Your task to perform on an android device: find snoozed emails in the gmail app Image 0: 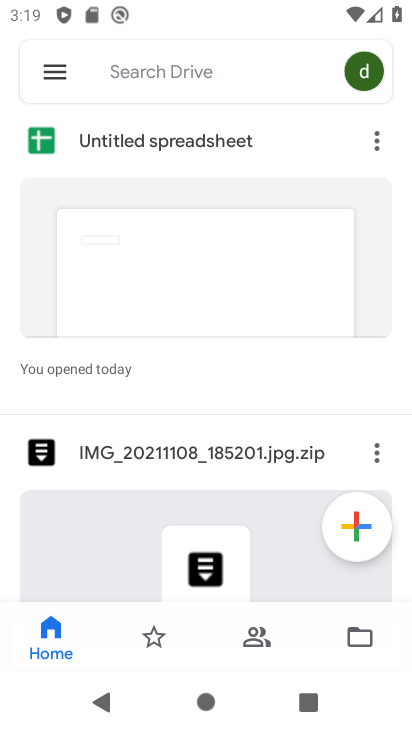
Step 0: press home button
Your task to perform on an android device: find snoozed emails in the gmail app Image 1: 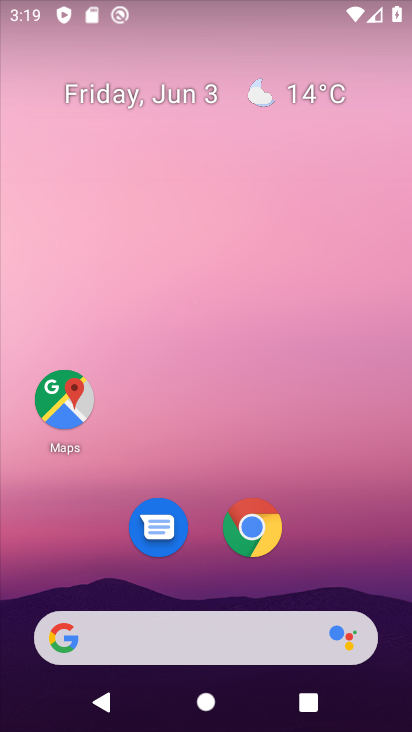
Step 1: drag from (320, 556) to (209, 98)
Your task to perform on an android device: find snoozed emails in the gmail app Image 2: 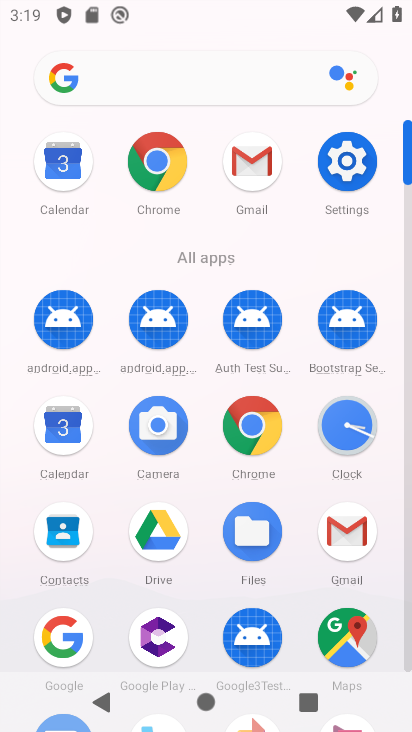
Step 2: click (251, 159)
Your task to perform on an android device: find snoozed emails in the gmail app Image 3: 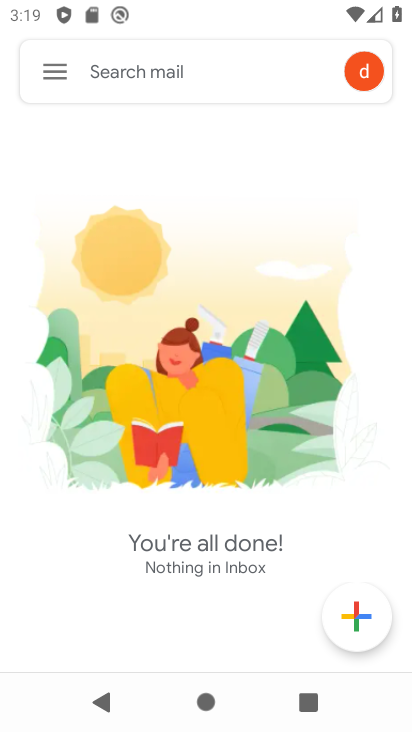
Step 3: click (57, 67)
Your task to perform on an android device: find snoozed emails in the gmail app Image 4: 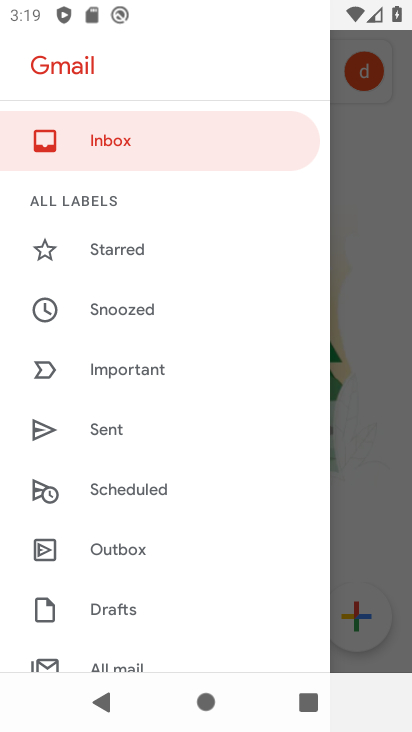
Step 4: click (147, 306)
Your task to perform on an android device: find snoozed emails in the gmail app Image 5: 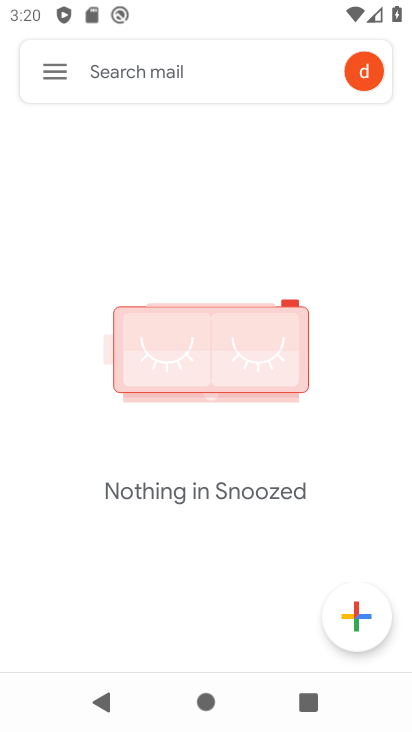
Step 5: task complete